Your task to perform on an android device: check battery use Image 0: 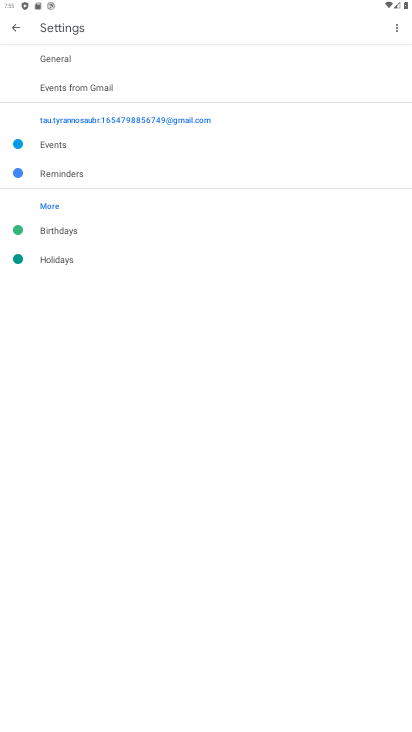
Step 0: press home button
Your task to perform on an android device: check battery use Image 1: 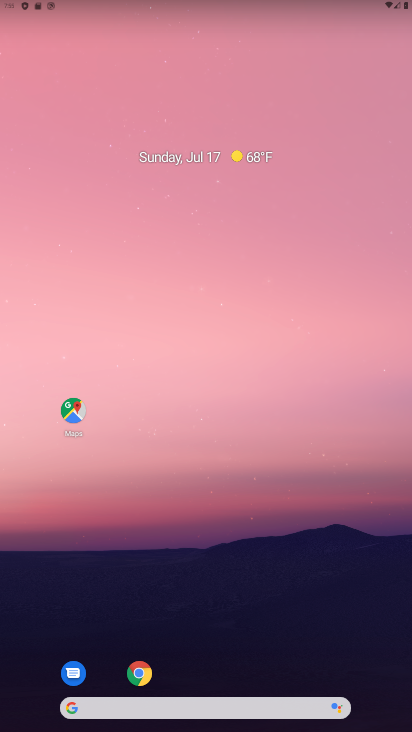
Step 1: drag from (238, 627) to (27, 88)
Your task to perform on an android device: check battery use Image 2: 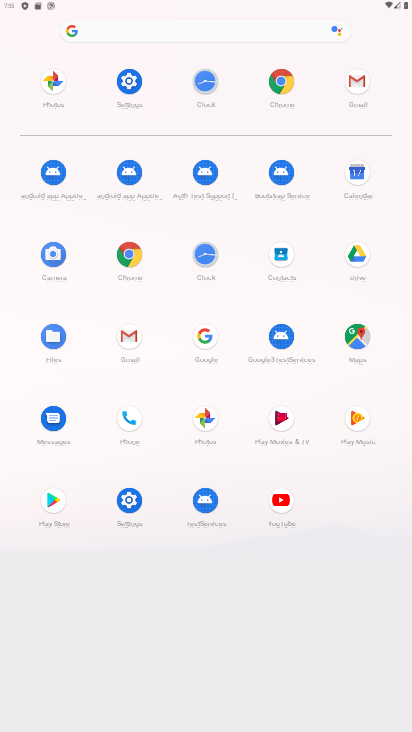
Step 2: click (119, 67)
Your task to perform on an android device: check battery use Image 3: 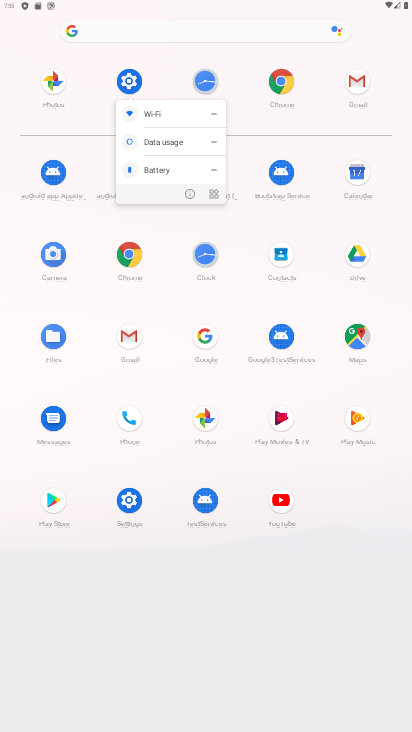
Step 3: click (123, 71)
Your task to perform on an android device: check battery use Image 4: 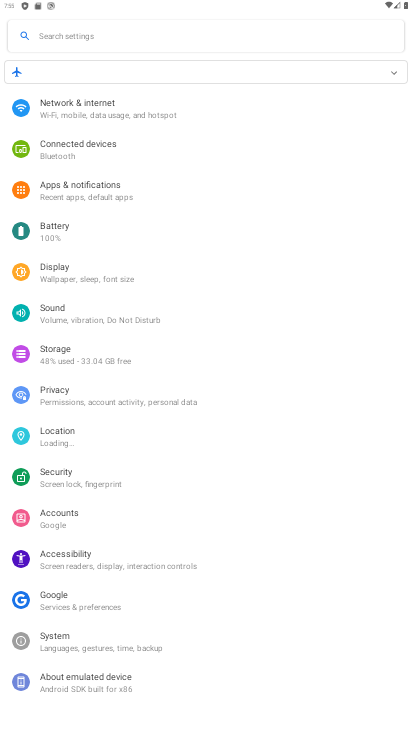
Step 4: click (40, 230)
Your task to perform on an android device: check battery use Image 5: 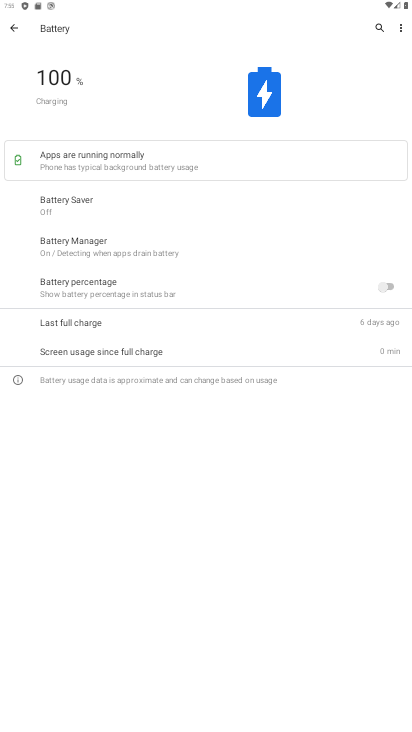
Step 5: task complete